Your task to perform on an android device: Open Google Maps Image 0: 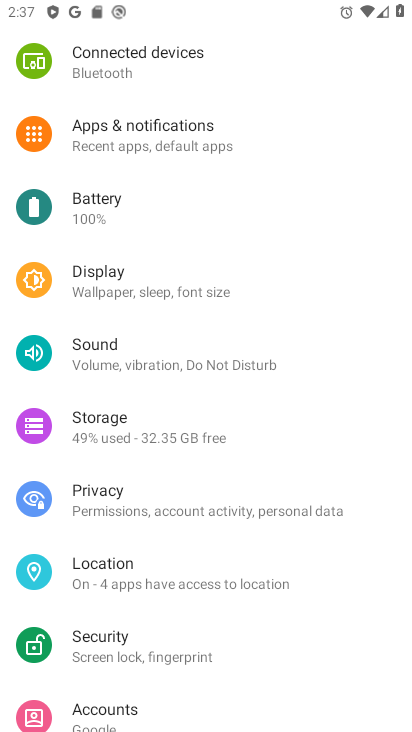
Step 0: press home button
Your task to perform on an android device: Open Google Maps Image 1: 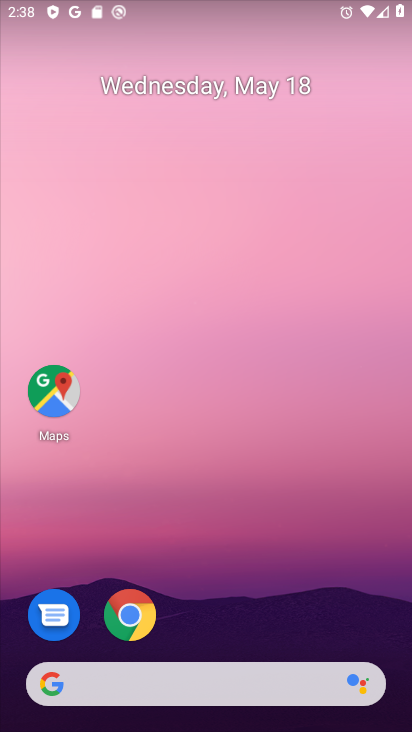
Step 1: click (55, 397)
Your task to perform on an android device: Open Google Maps Image 2: 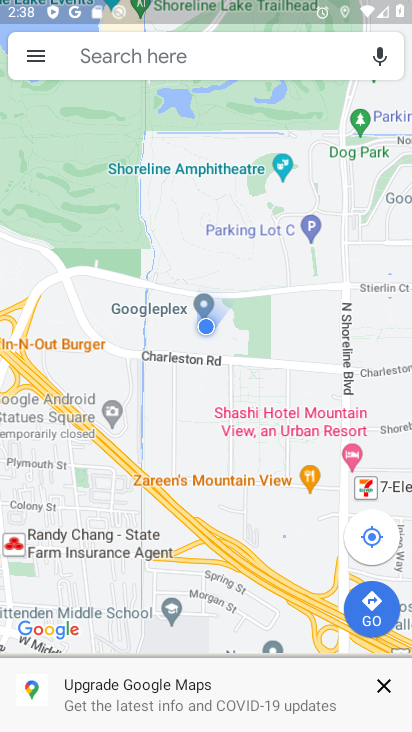
Step 2: task complete